Your task to perform on an android device: check storage Image 0: 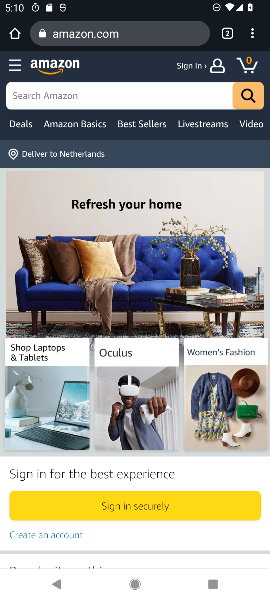
Step 0: press home button
Your task to perform on an android device: check storage Image 1: 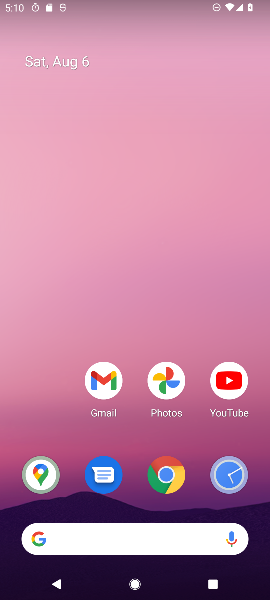
Step 1: drag from (42, 563) to (231, 19)
Your task to perform on an android device: check storage Image 2: 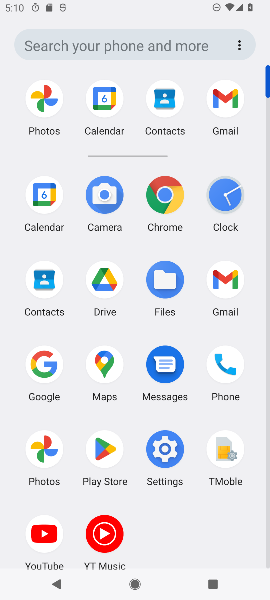
Step 2: click (165, 466)
Your task to perform on an android device: check storage Image 3: 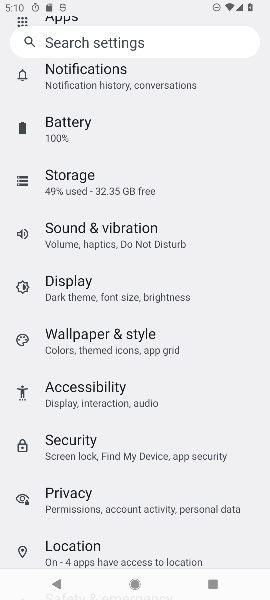
Step 3: click (63, 190)
Your task to perform on an android device: check storage Image 4: 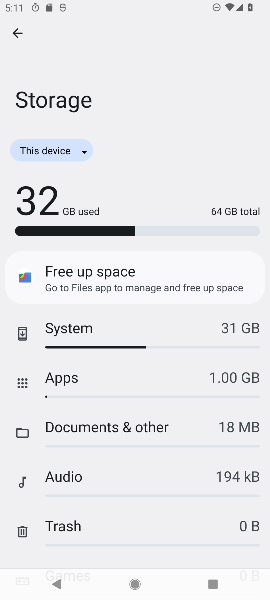
Step 4: task complete